Your task to perform on an android device: toggle show notifications on the lock screen Image 0: 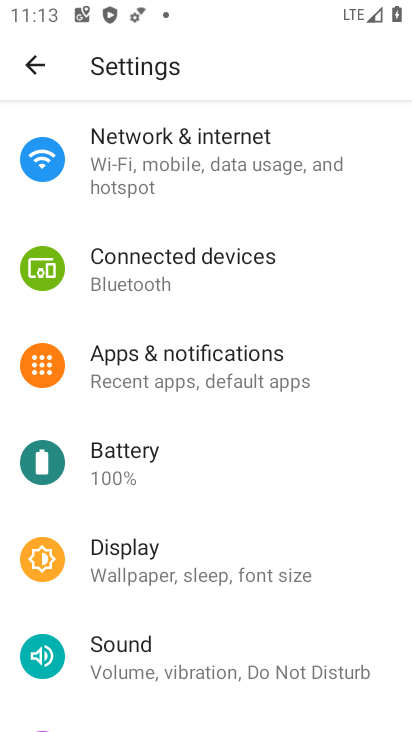
Step 0: click (218, 366)
Your task to perform on an android device: toggle show notifications on the lock screen Image 1: 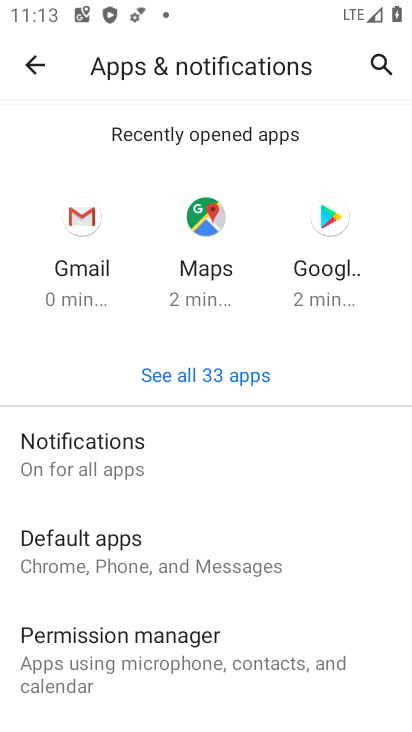
Step 1: click (180, 478)
Your task to perform on an android device: toggle show notifications on the lock screen Image 2: 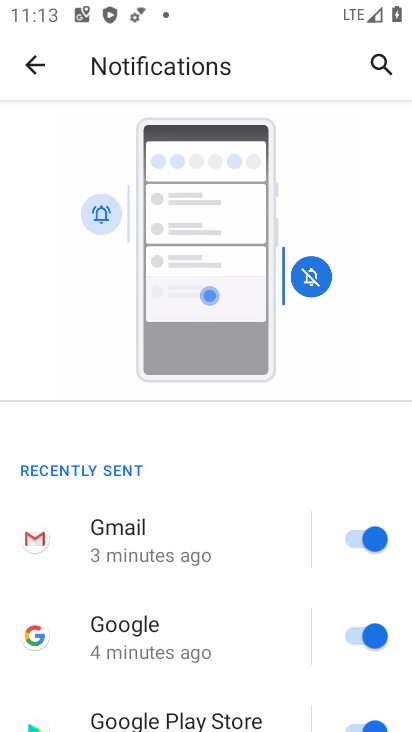
Step 2: drag from (144, 685) to (287, 172)
Your task to perform on an android device: toggle show notifications on the lock screen Image 3: 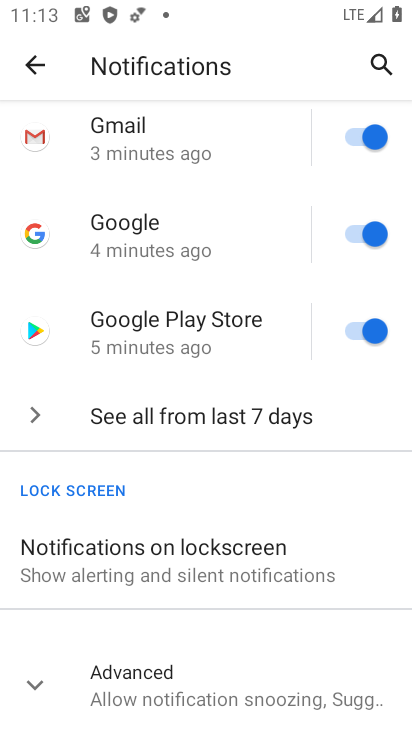
Step 3: click (236, 557)
Your task to perform on an android device: toggle show notifications on the lock screen Image 4: 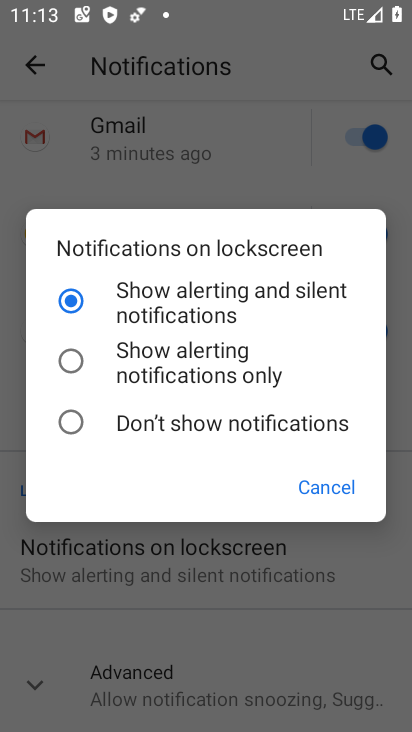
Step 4: click (222, 419)
Your task to perform on an android device: toggle show notifications on the lock screen Image 5: 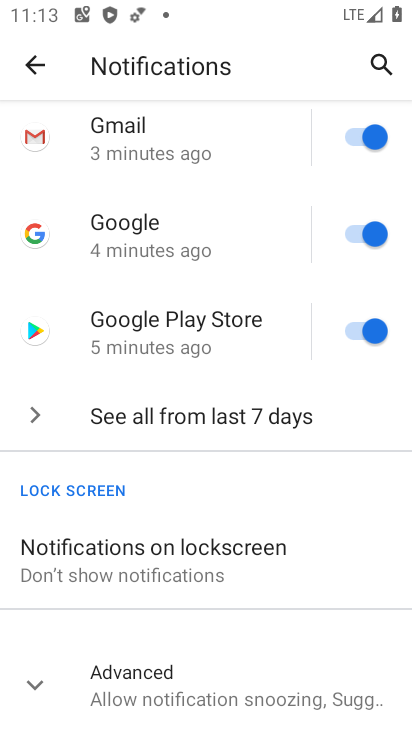
Step 5: task complete